Your task to perform on an android device: Open Google Chrome and open the bookmarks view Image 0: 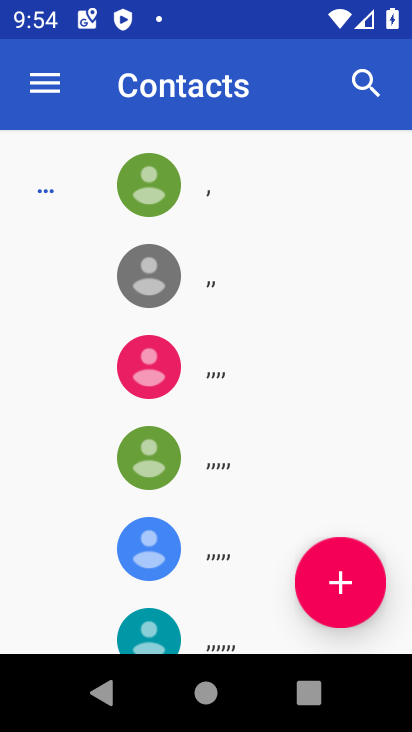
Step 0: press home button
Your task to perform on an android device: Open Google Chrome and open the bookmarks view Image 1: 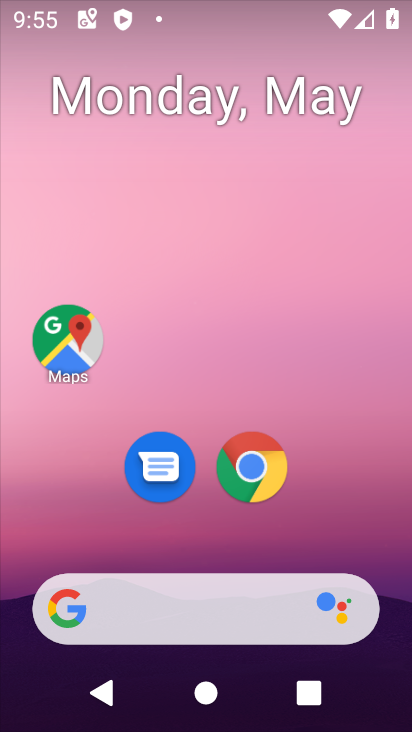
Step 1: click (249, 465)
Your task to perform on an android device: Open Google Chrome and open the bookmarks view Image 2: 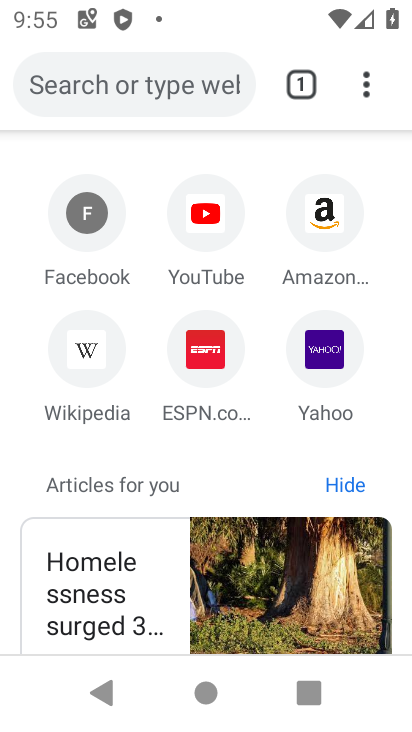
Step 2: click (366, 88)
Your task to perform on an android device: Open Google Chrome and open the bookmarks view Image 3: 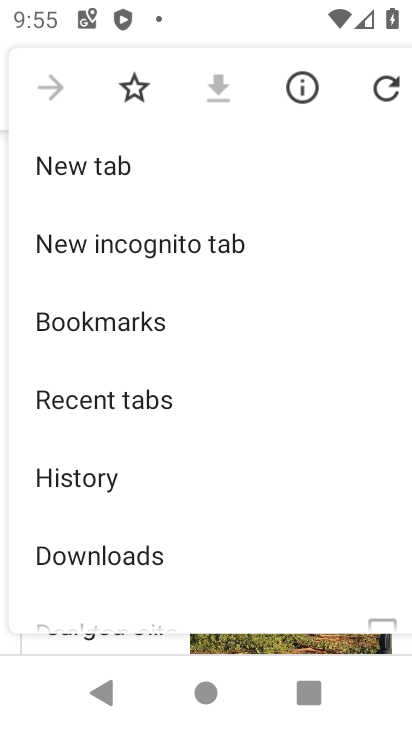
Step 3: click (79, 318)
Your task to perform on an android device: Open Google Chrome and open the bookmarks view Image 4: 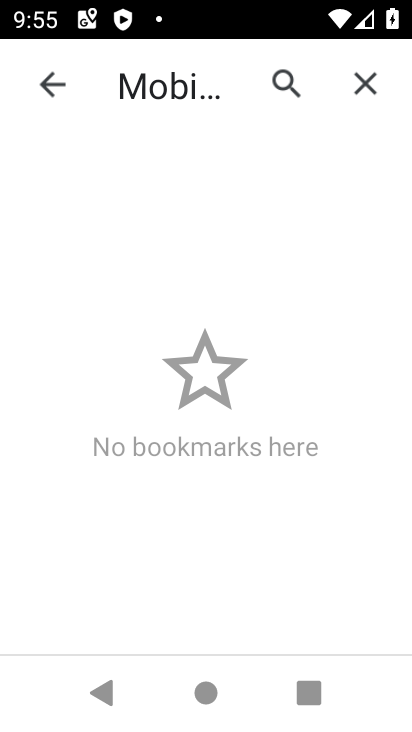
Step 4: task complete